Your task to perform on an android device: turn smart compose on in the gmail app Image 0: 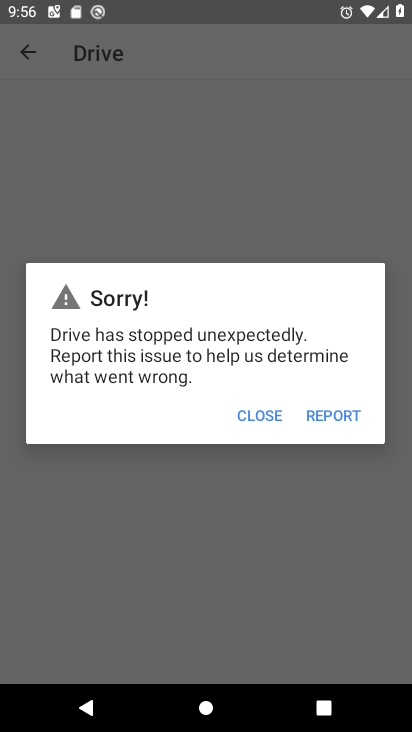
Step 0: press home button
Your task to perform on an android device: turn smart compose on in the gmail app Image 1: 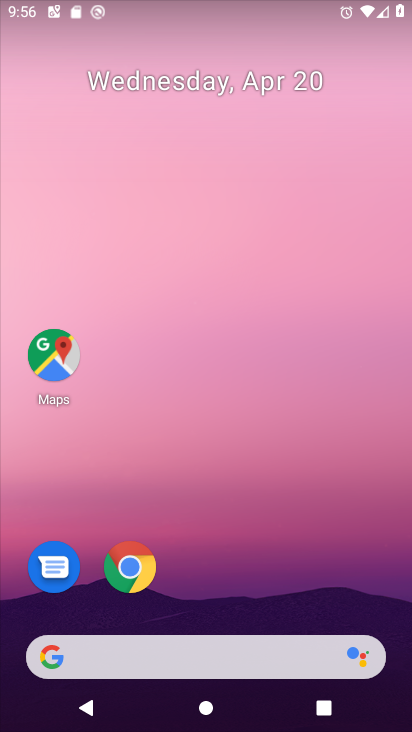
Step 1: drag from (336, 577) to (329, 137)
Your task to perform on an android device: turn smart compose on in the gmail app Image 2: 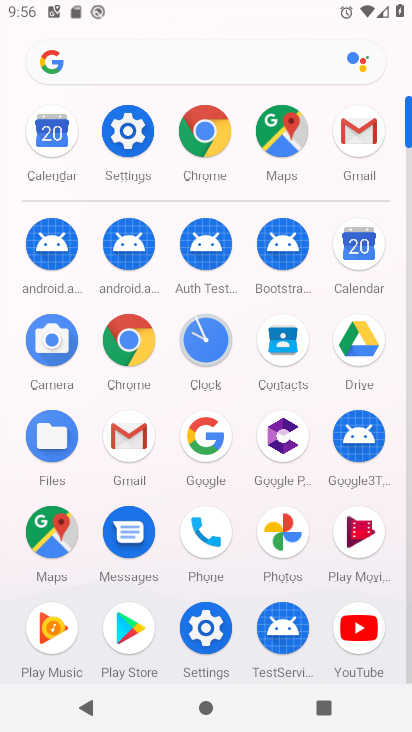
Step 2: click (129, 440)
Your task to perform on an android device: turn smart compose on in the gmail app Image 3: 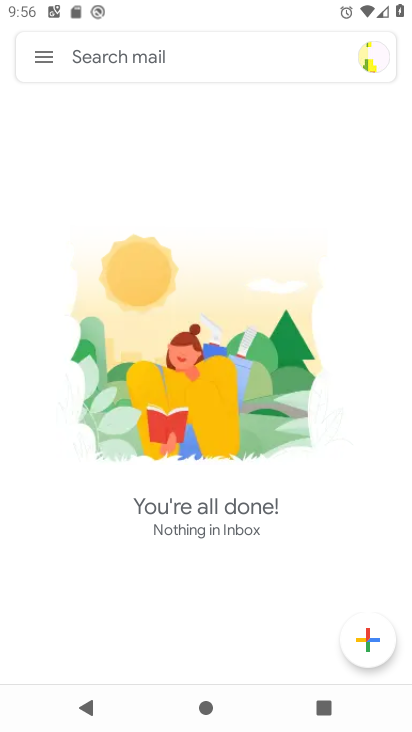
Step 3: click (44, 54)
Your task to perform on an android device: turn smart compose on in the gmail app Image 4: 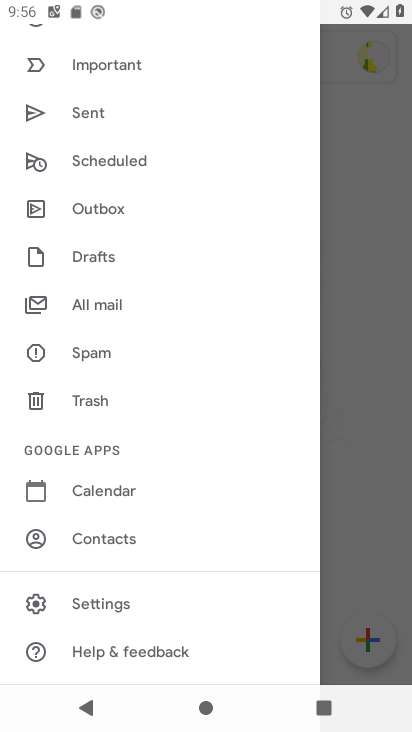
Step 4: drag from (226, 516) to (262, 290)
Your task to perform on an android device: turn smart compose on in the gmail app Image 5: 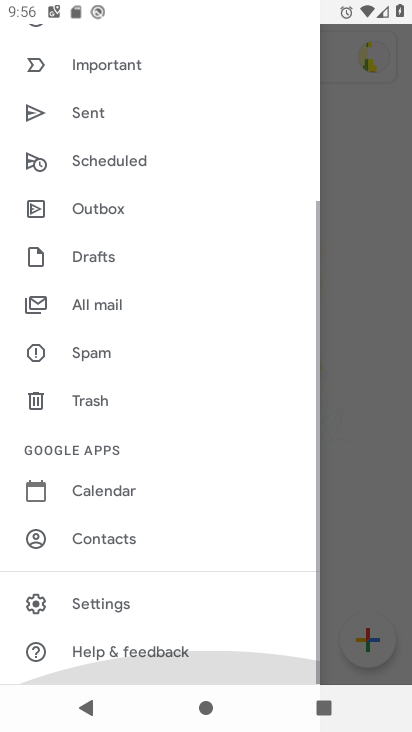
Step 5: drag from (271, 321) to (272, 389)
Your task to perform on an android device: turn smart compose on in the gmail app Image 6: 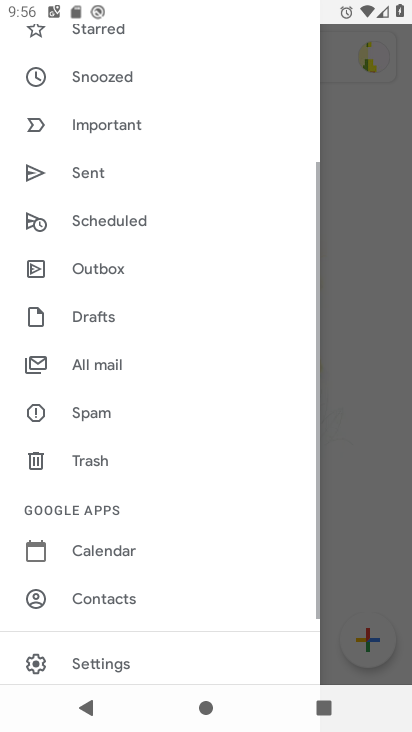
Step 6: drag from (263, 255) to (246, 414)
Your task to perform on an android device: turn smart compose on in the gmail app Image 7: 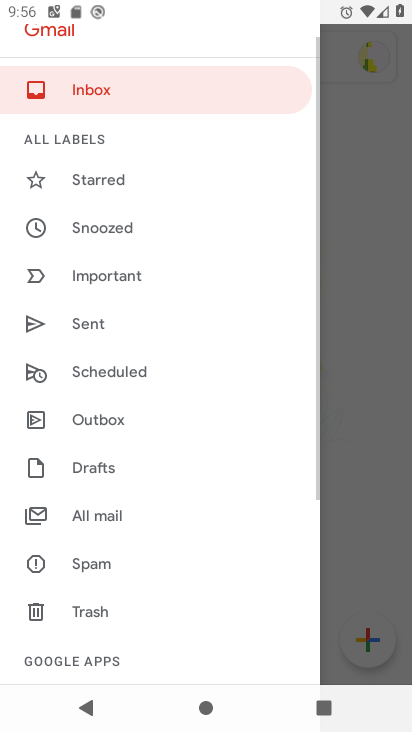
Step 7: drag from (245, 252) to (226, 423)
Your task to perform on an android device: turn smart compose on in the gmail app Image 8: 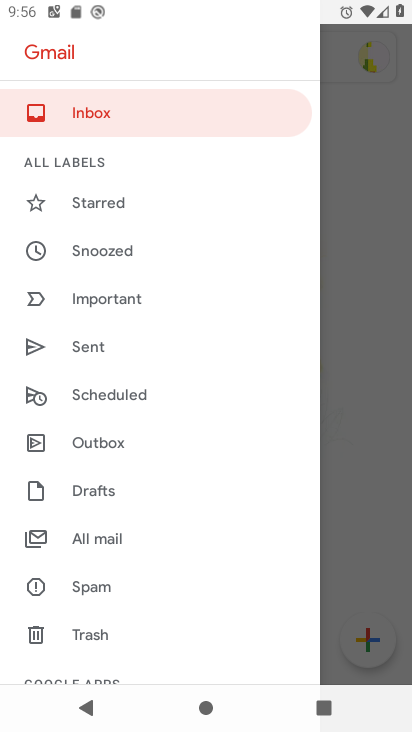
Step 8: drag from (199, 504) to (230, 331)
Your task to perform on an android device: turn smart compose on in the gmail app Image 9: 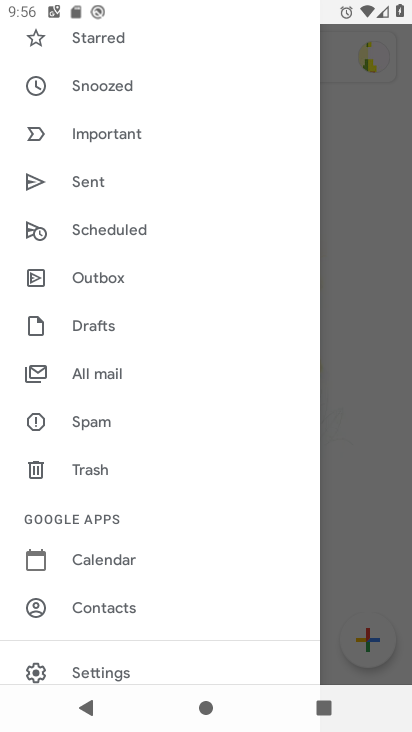
Step 9: drag from (206, 517) to (237, 361)
Your task to perform on an android device: turn smart compose on in the gmail app Image 10: 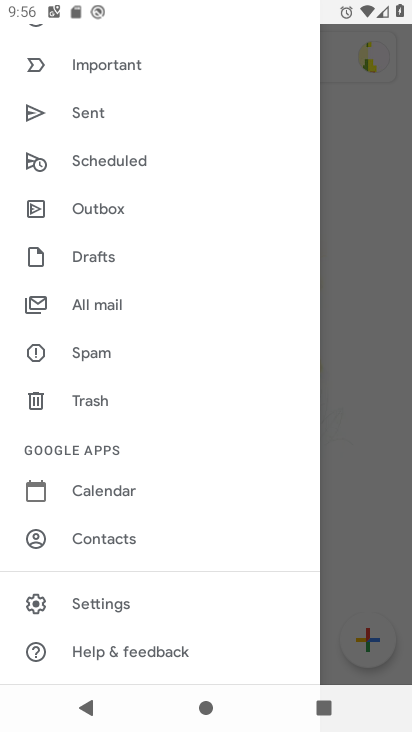
Step 10: click (129, 601)
Your task to perform on an android device: turn smart compose on in the gmail app Image 11: 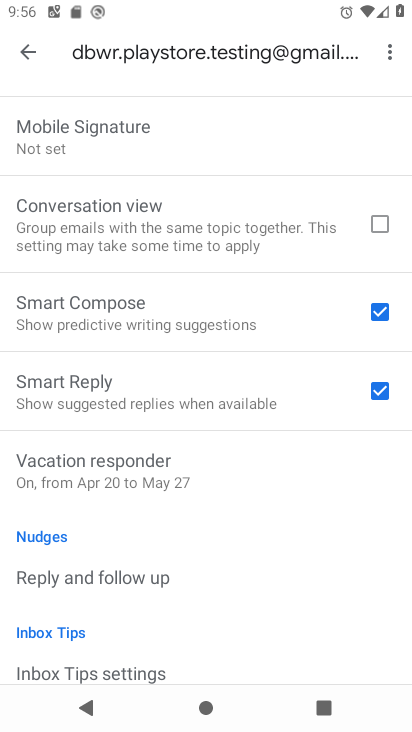
Step 11: task complete